Your task to perform on an android device: Open sound settings Image 0: 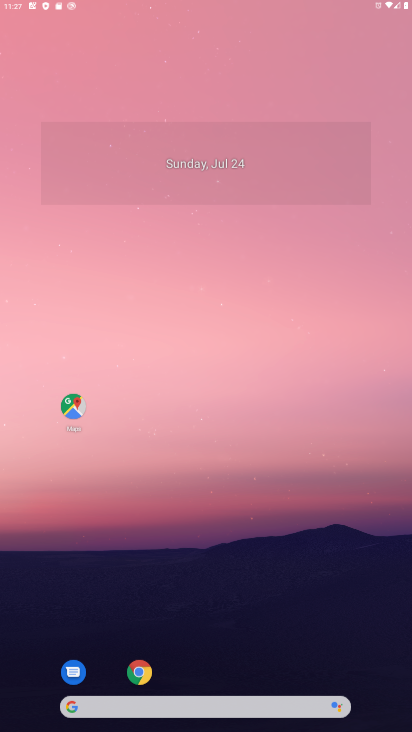
Step 0: click (251, 105)
Your task to perform on an android device: Open sound settings Image 1: 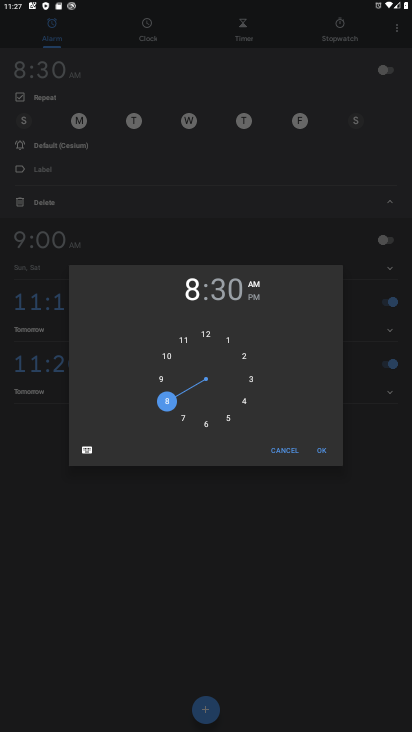
Step 1: press home button
Your task to perform on an android device: Open sound settings Image 2: 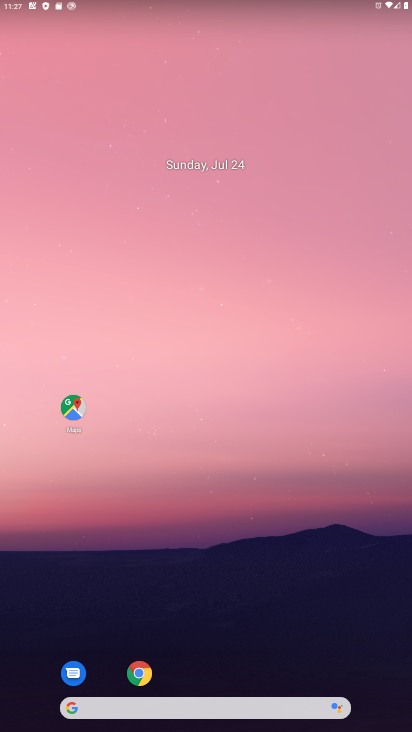
Step 2: drag from (337, 606) to (230, 15)
Your task to perform on an android device: Open sound settings Image 3: 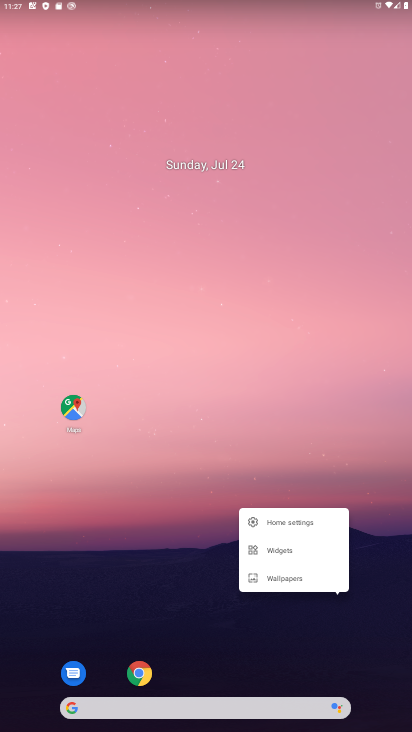
Step 3: click (301, 370)
Your task to perform on an android device: Open sound settings Image 4: 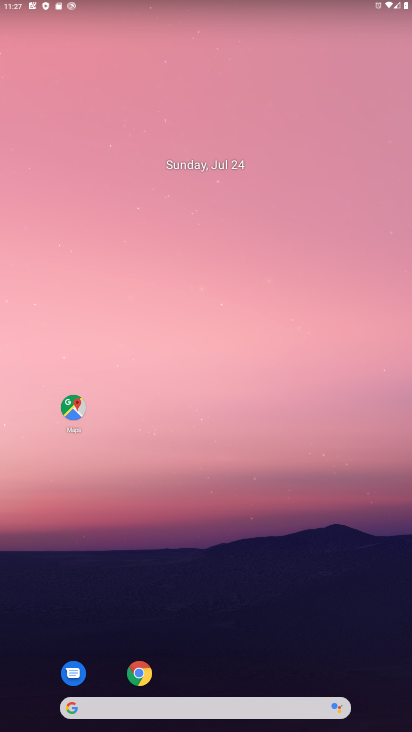
Step 4: drag from (306, 622) to (171, 51)
Your task to perform on an android device: Open sound settings Image 5: 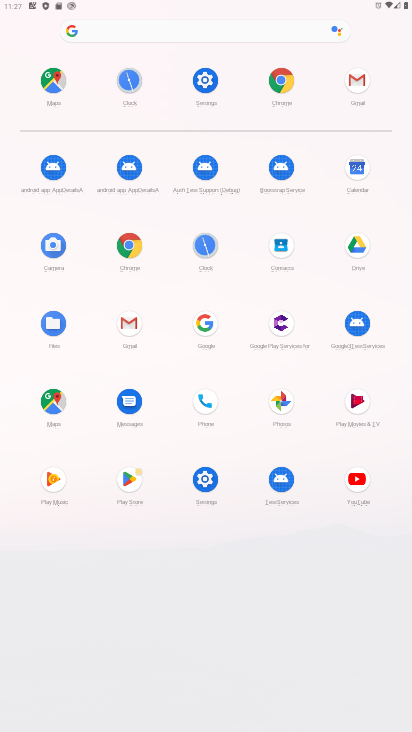
Step 5: click (209, 79)
Your task to perform on an android device: Open sound settings Image 6: 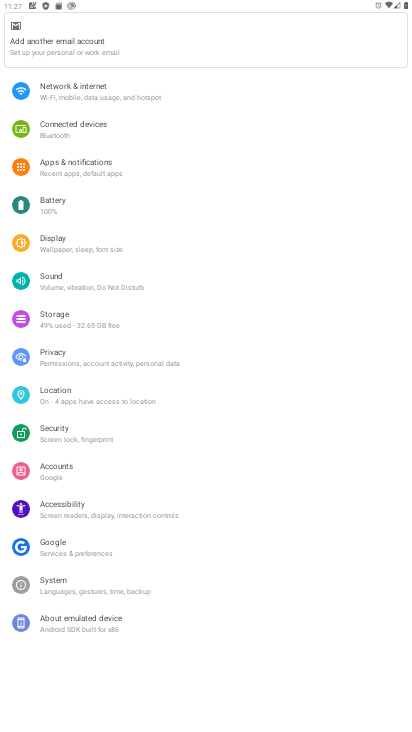
Step 6: click (109, 289)
Your task to perform on an android device: Open sound settings Image 7: 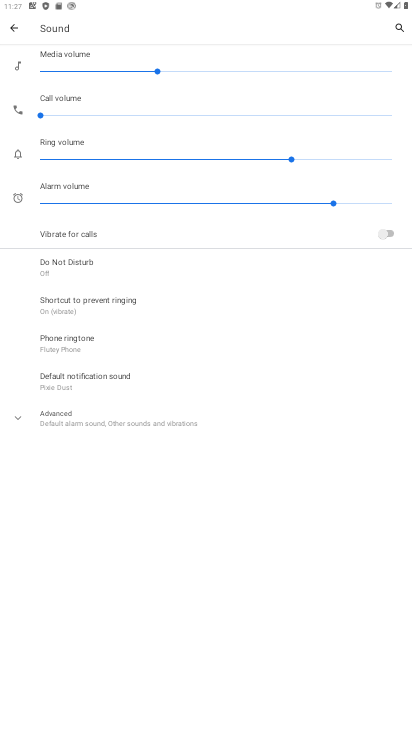
Step 7: task complete